Your task to perform on an android device: Open Youtube and go to the subscriptions tab Image 0: 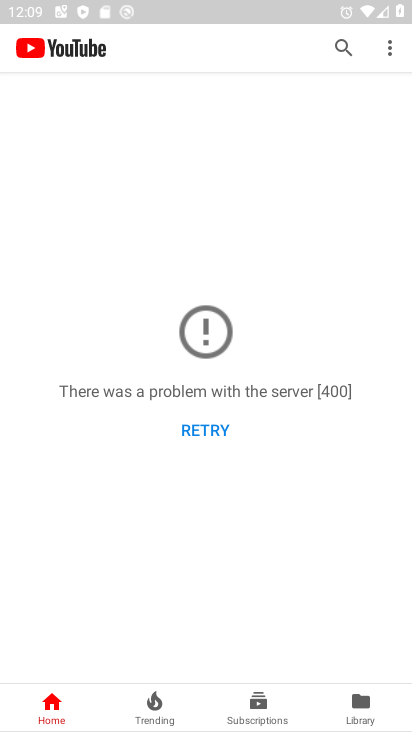
Step 0: press back button
Your task to perform on an android device: Open Youtube and go to the subscriptions tab Image 1: 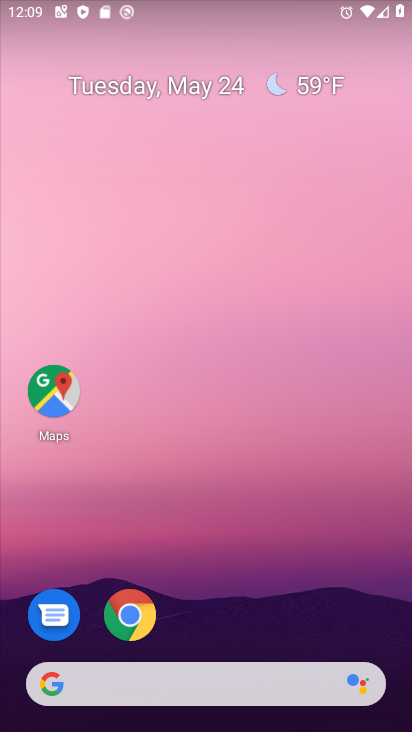
Step 1: drag from (256, 604) to (235, 49)
Your task to perform on an android device: Open Youtube and go to the subscriptions tab Image 2: 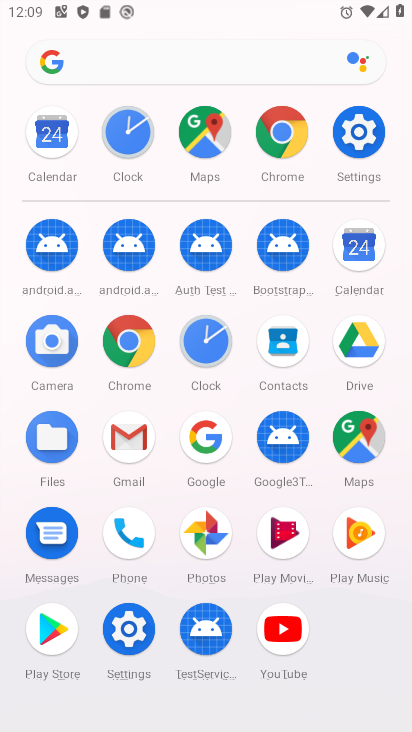
Step 2: click (279, 627)
Your task to perform on an android device: Open Youtube and go to the subscriptions tab Image 3: 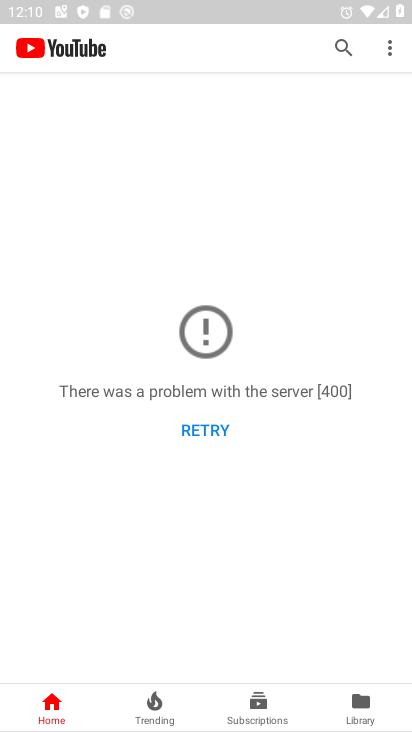
Step 3: click (261, 698)
Your task to perform on an android device: Open Youtube and go to the subscriptions tab Image 4: 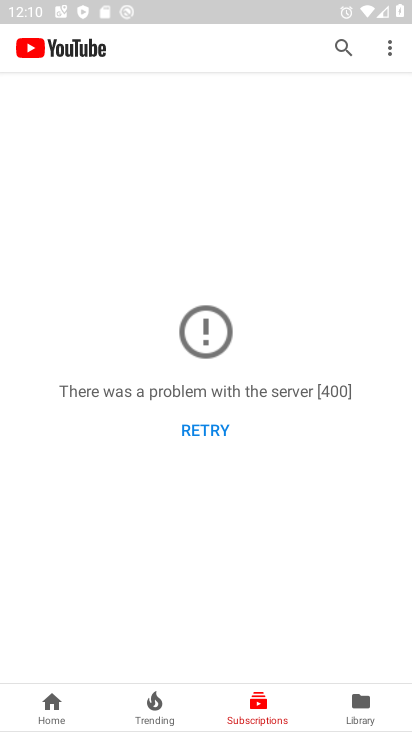
Step 4: task complete